Your task to perform on an android device: open app "Cash App" (install if not already installed) Image 0: 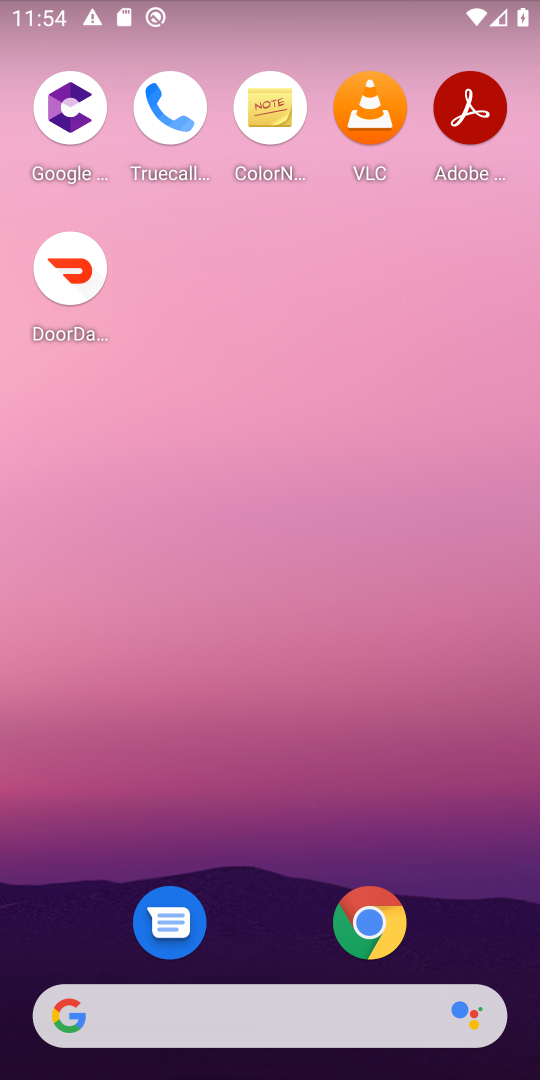
Step 0: drag from (269, 957) to (398, 11)
Your task to perform on an android device: open app "Cash App" (install if not already installed) Image 1: 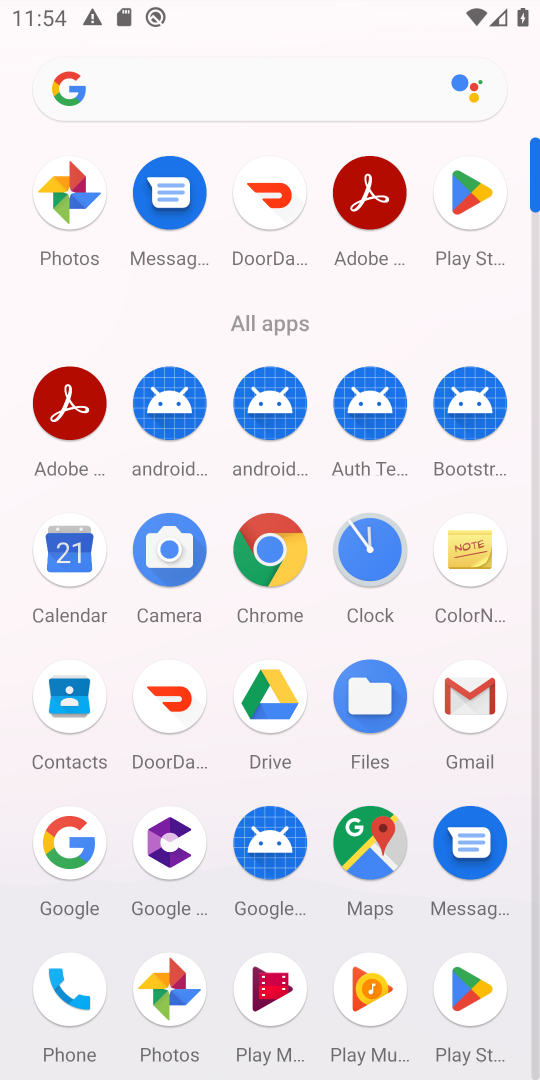
Step 1: click (461, 974)
Your task to perform on an android device: open app "Cash App" (install if not already installed) Image 2: 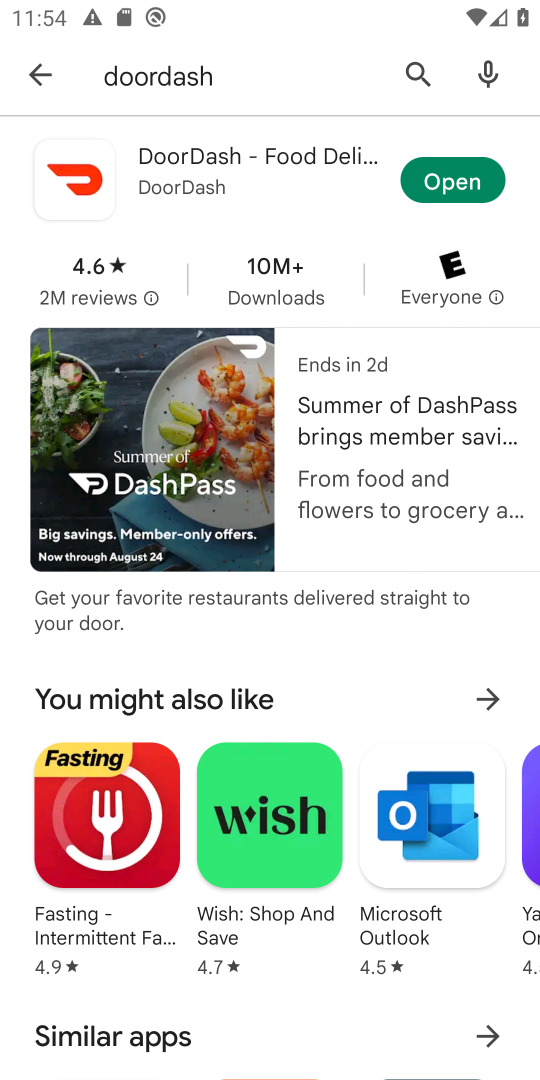
Step 2: drag from (432, 200) to (481, 189)
Your task to perform on an android device: open app "Cash App" (install if not already installed) Image 3: 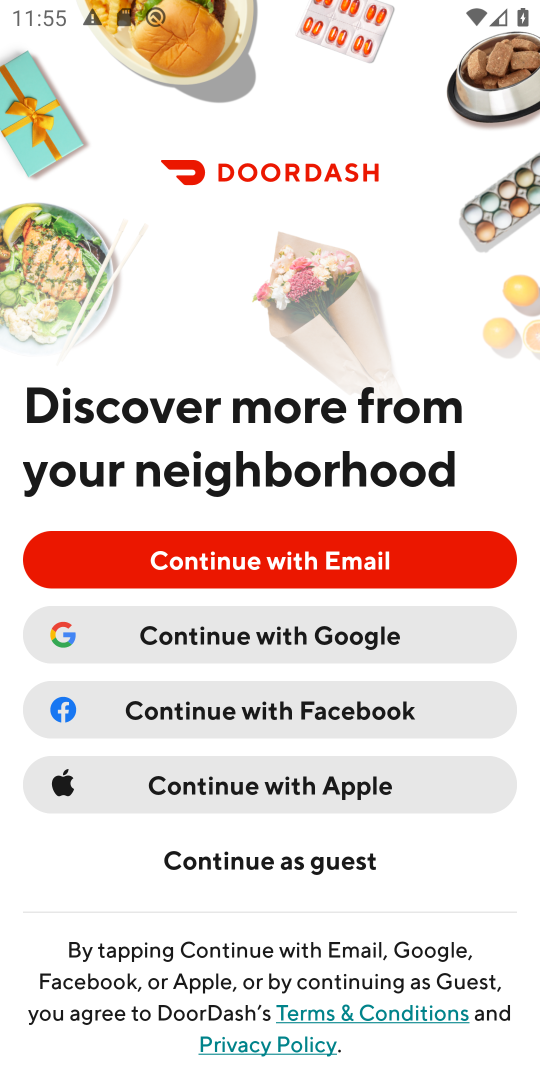
Step 3: press home button
Your task to perform on an android device: open app "Cash App" (install if not already installed) Image 4: 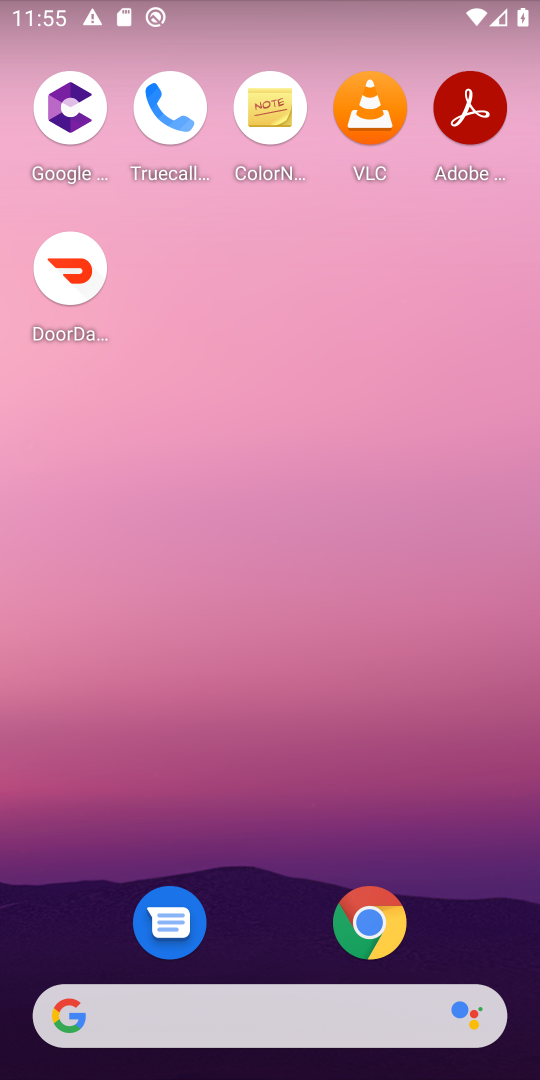
Step 4: drag from (295, 955) to (441, 214)
Your task to perform on an android device: open app "Cash App" (install if not already installed) Image 5: 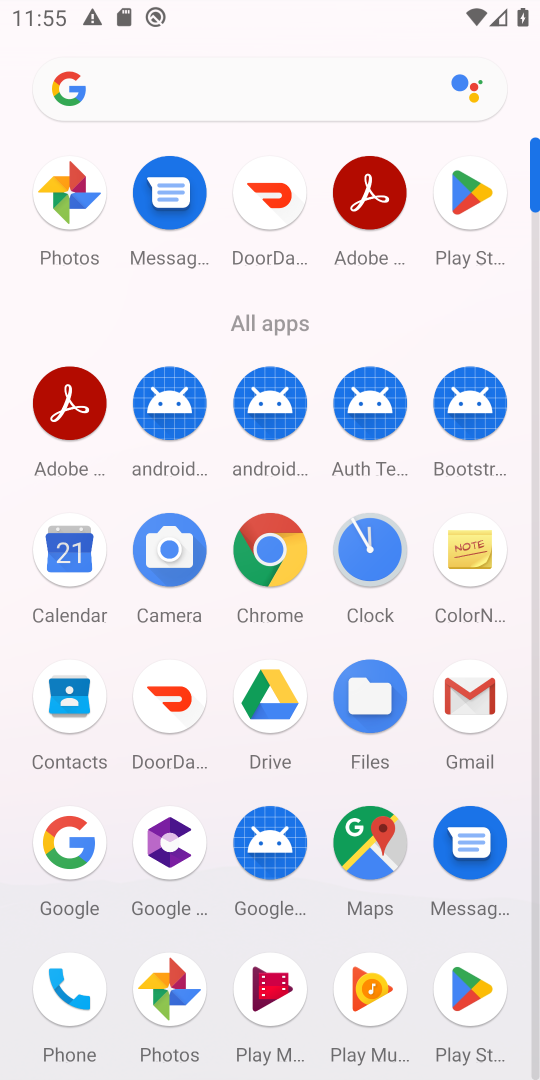
Step 5: click (474, 997)
Your task to perform on an android device: open app "Cash App" (install if not already installed) Image 6: 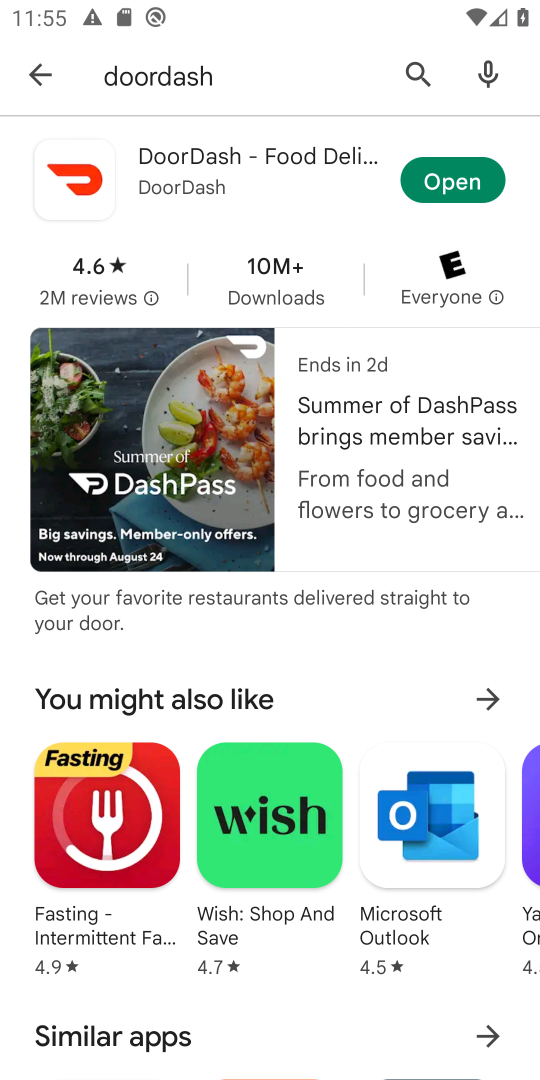
Step 6: click (29, 68)
Your task to perform on an android device: open app "Cash App" (install if not already installed) Image 7: 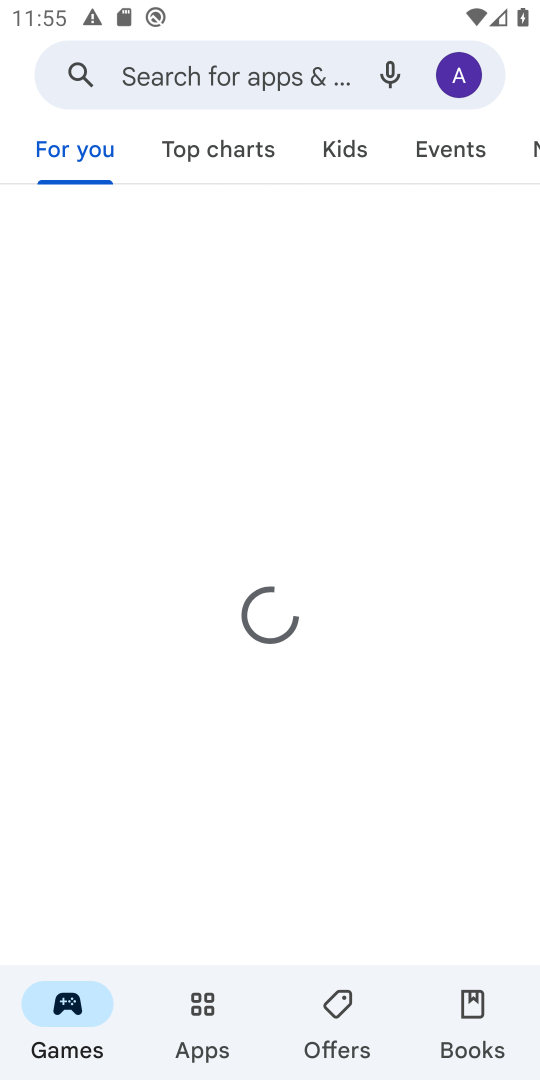
Step 7: click (104, 90)
Your task to perform on an android device: open app "Cash App" (install if not already installed) Image 8: 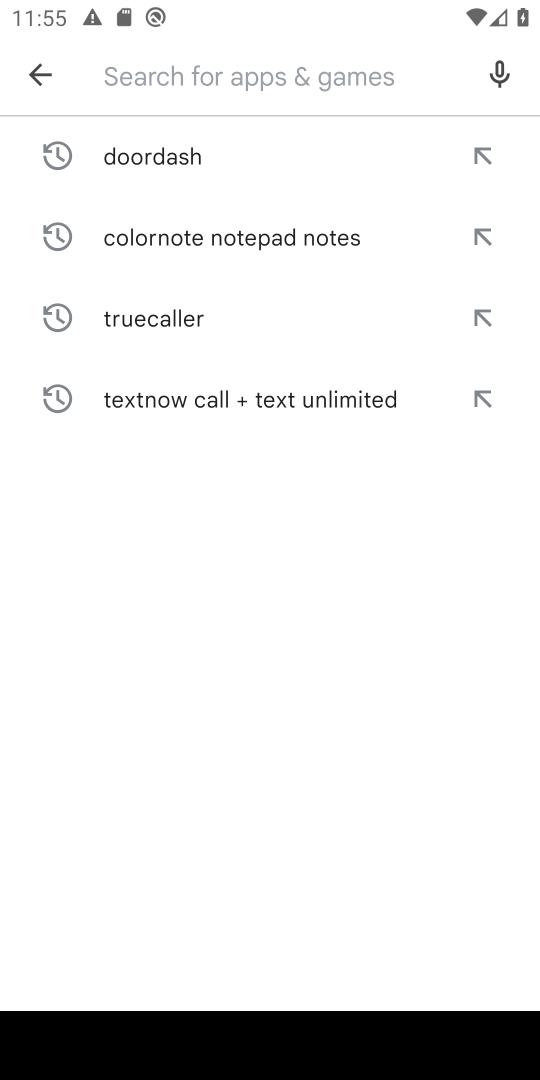
Step 8: type "Cash App"
Your task to perform on an android device: open app "Cash App" (install if not already installed) Image 9: 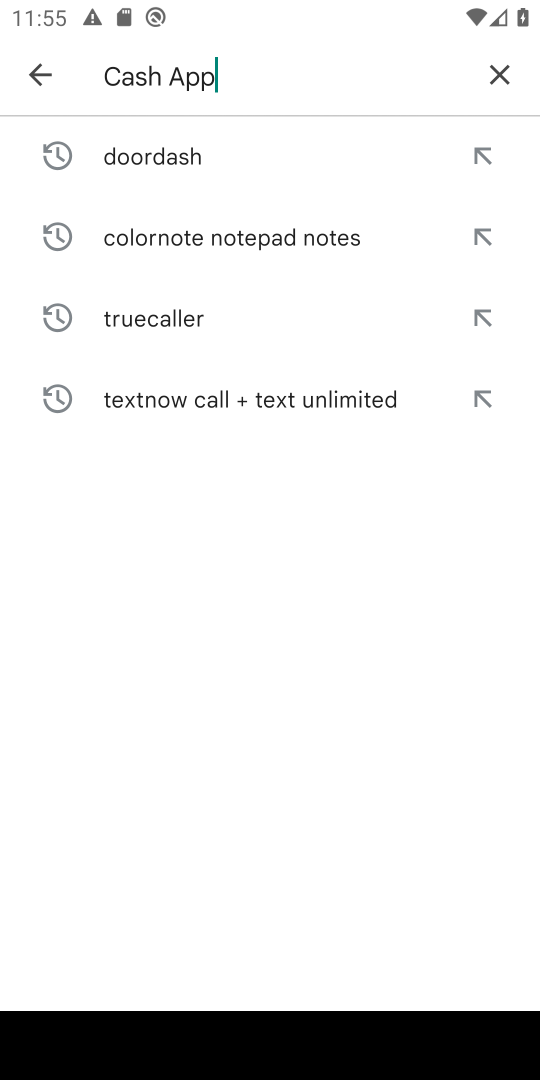
Step 9: type ""
Your task to perform on an android device: open app "Cash App" (install if not already installed) Image 10: 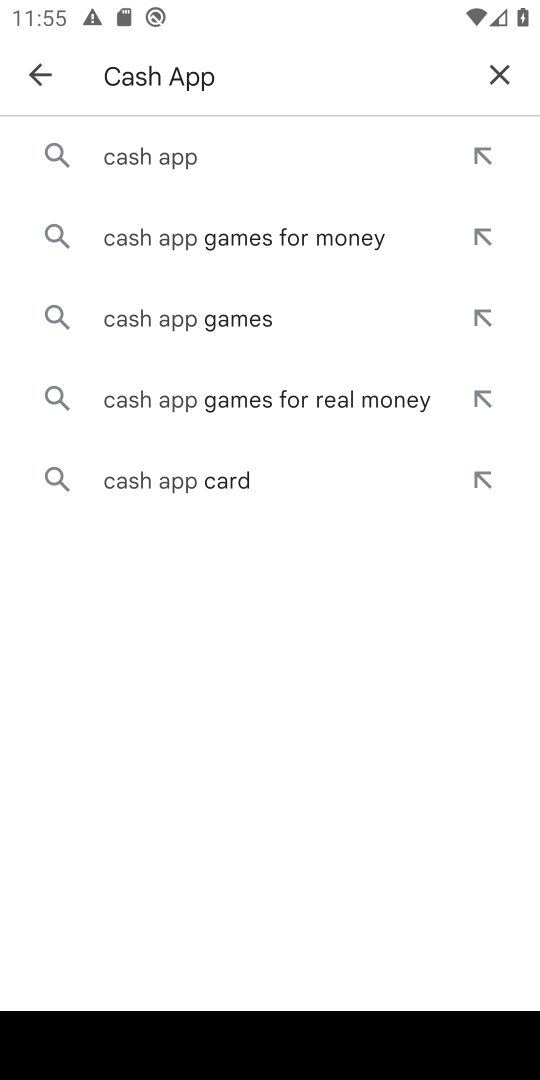
Step 10: click (109, 174)
Your task to perform on an android device: open app "Cash App" (install if not already installed) Image 11: 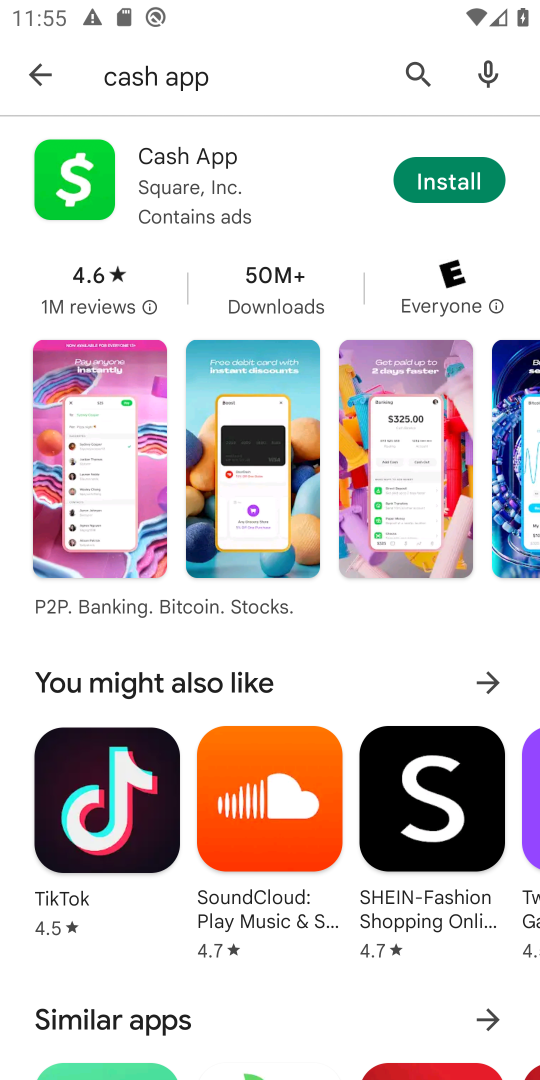
Step 11: click (435, 169)
Your task to perform on an android device: open app "Cash App" (install if not already installed) Image 12: 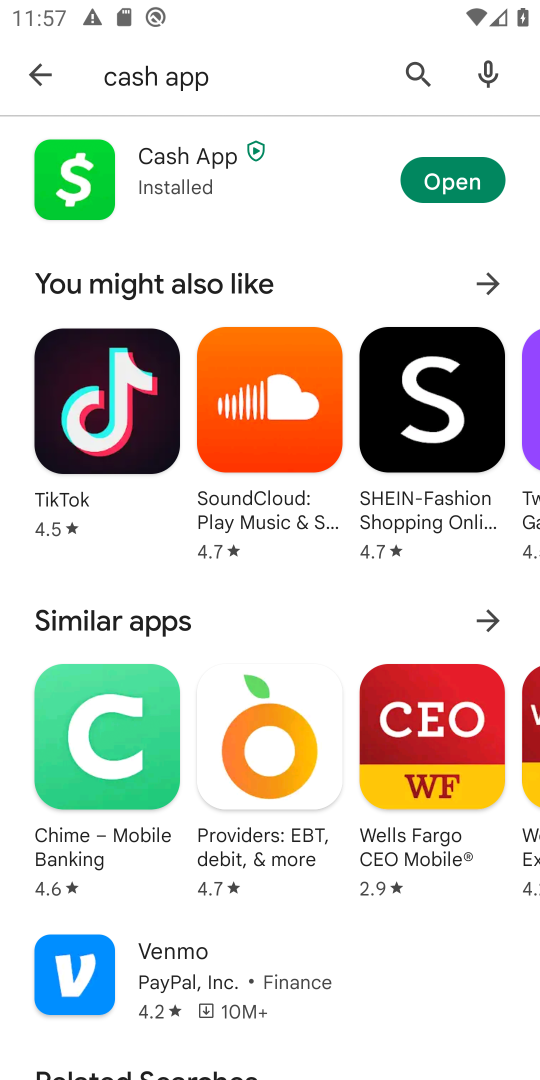
Step 12: click (406, 181)
Your task to perform on an android device: open app "Cash App" (install if not already installed) Image 13: 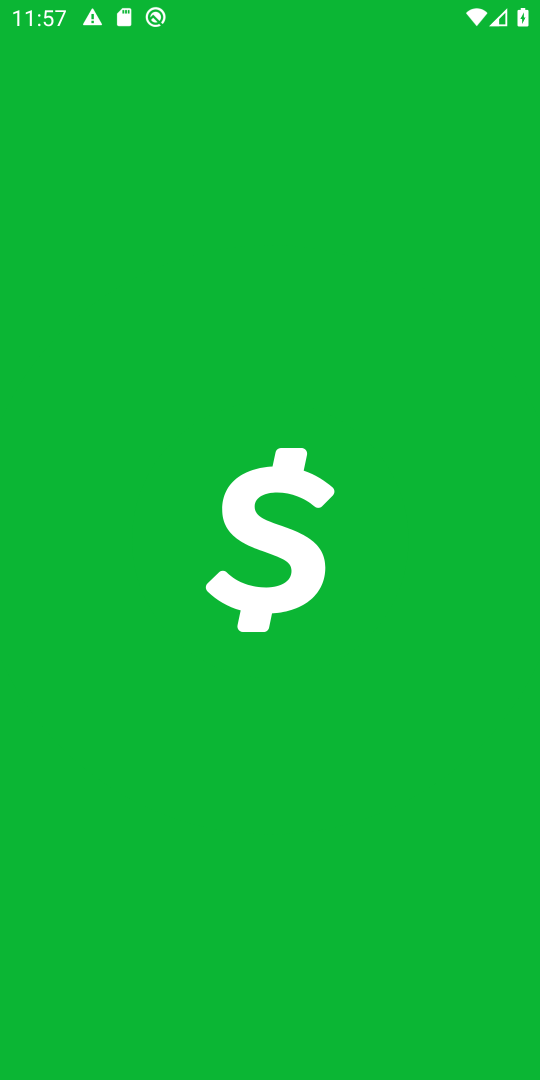
Step 13: task complete